Your task to perform on an android device: Go to Google Image 0: 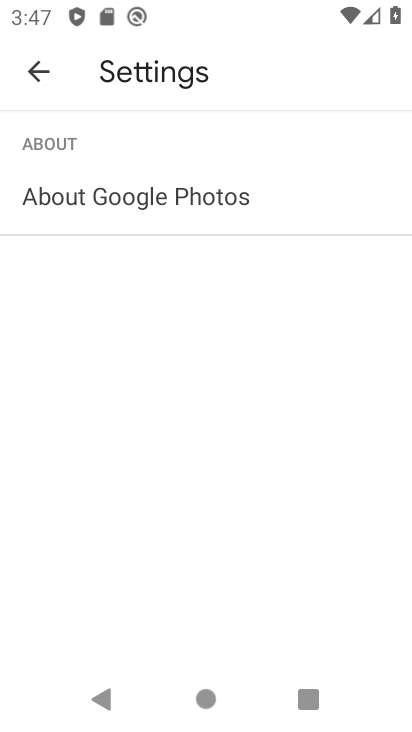
Step 0: click (27, 77)
Your task to perform on an android device: Go to Google Image 1: 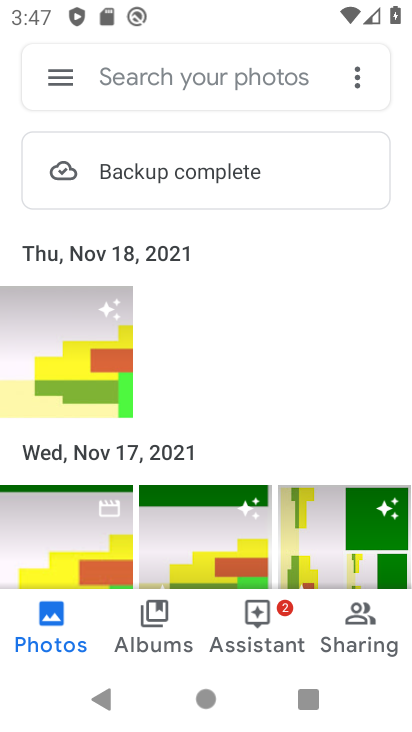
Step 1: press back button
Your task to perform on an android device: Go to Google Image 2: 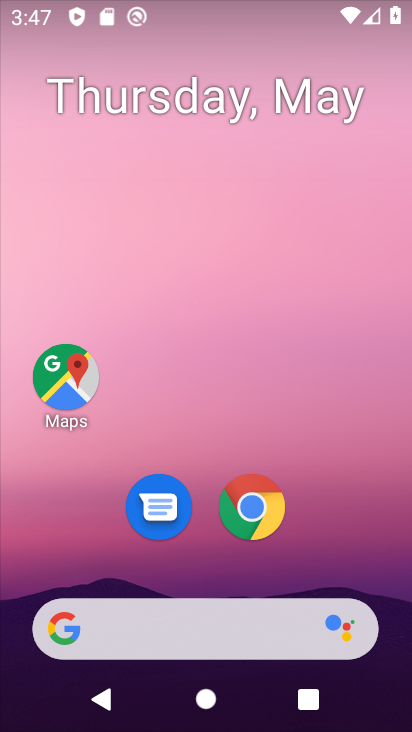
Step 2: drag from (302, 571) to (211, 0)
Your task to perform on an android device: Go to Google Image 3: 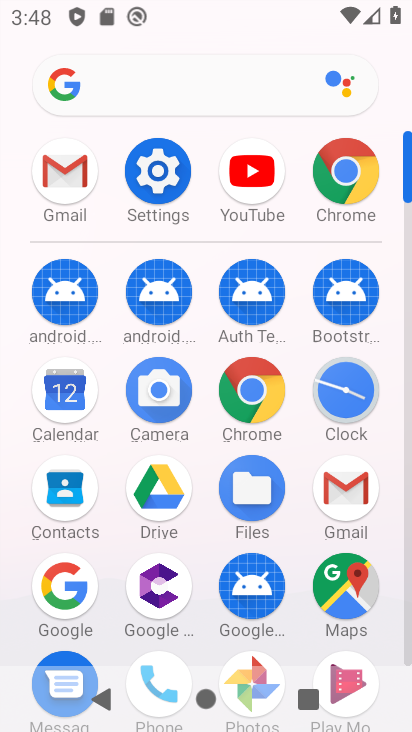
Step 3: click (65, 594)
Your task to perform on an android device: Go to Google Image 4: 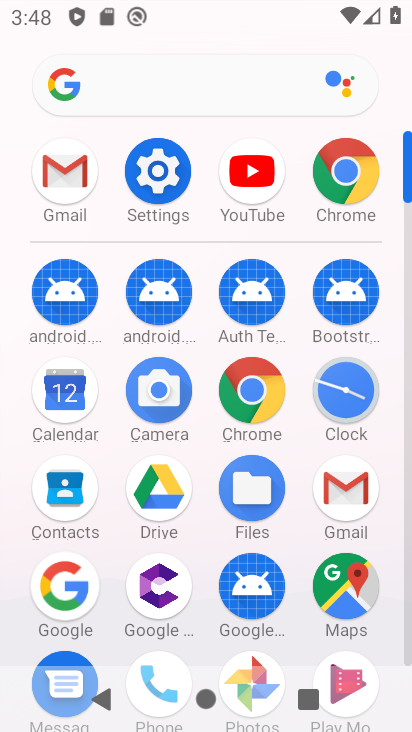
Step 4: click (60, 584)
Your task to perform on an android device: Go to Google Image 5: 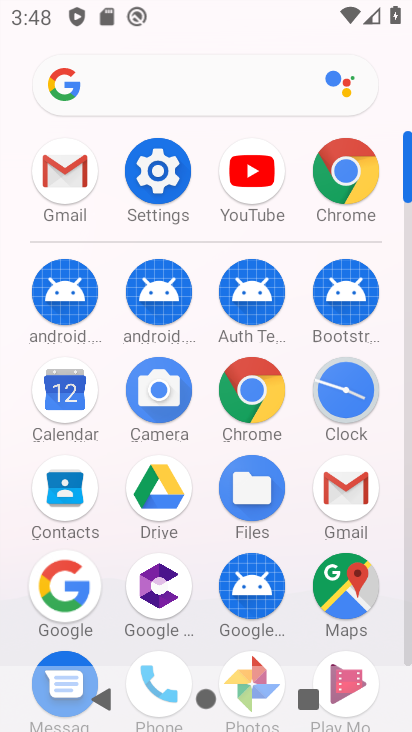
Step 5: click (53, 583)
Your task to perform on an android device: Go to Google Image 6: 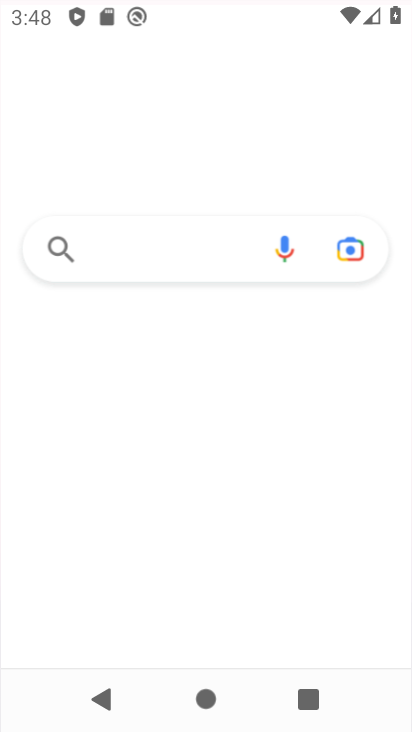
Step 6: click (58, 582)
Your task to perform on an android device: Go to Google Image 7: 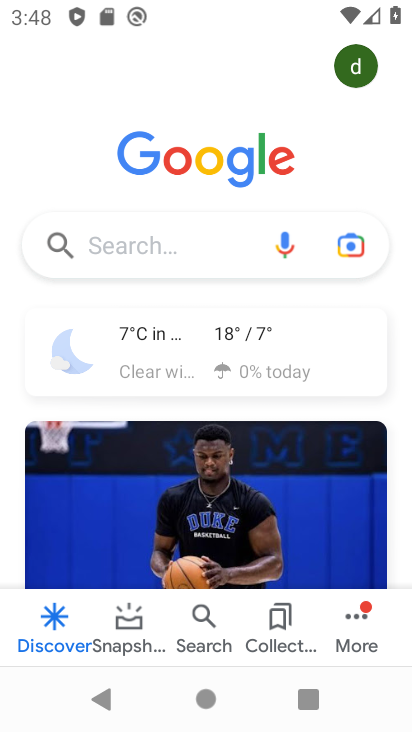
Step 7: click (137, 248)
Your task to perform on an android device: Go to Google Image 8: 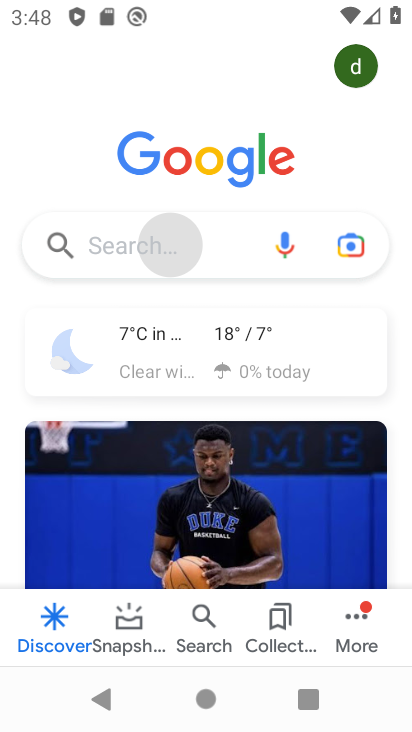
Step 8: click (131, 242)
Your task to perform on an android device: Go to Google Image 9: 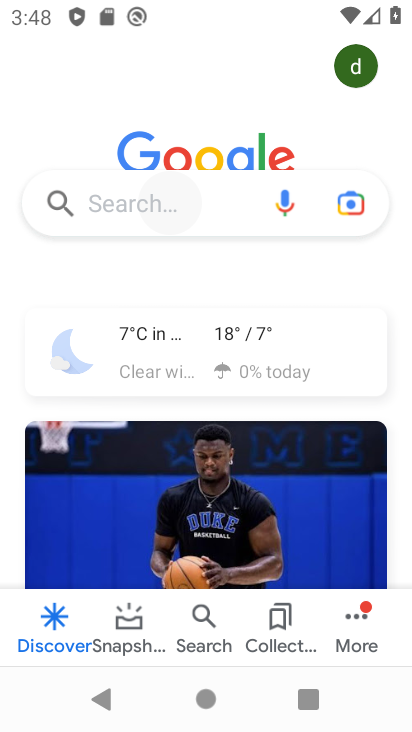
Step 9: click (132, 241)
Your task to perform on an android device: Go to Google Image 10: 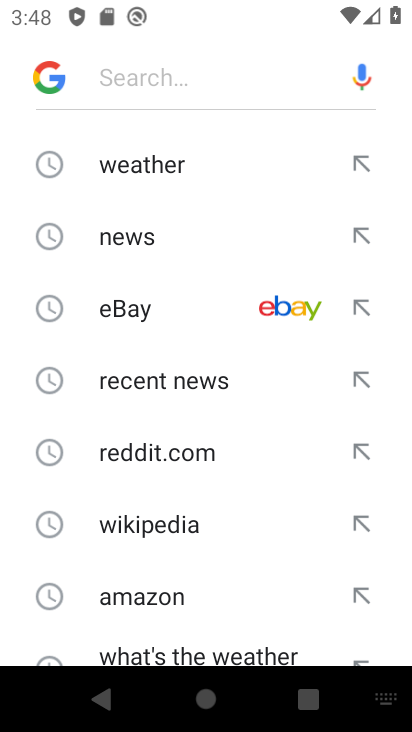
Step 10: task complete